Your task to perform on an android device: delete a single message in the gmail app Image 0: 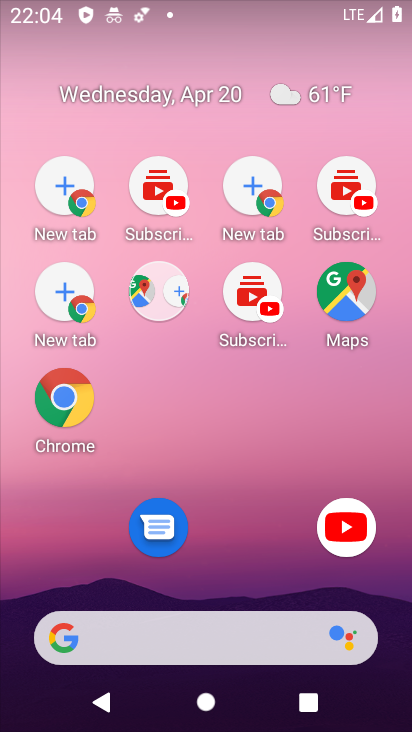
Step 0: drag from (224, 647) to (114, 78)
Your task to perform on an android device: delete a single message in the gmail app Image 1: 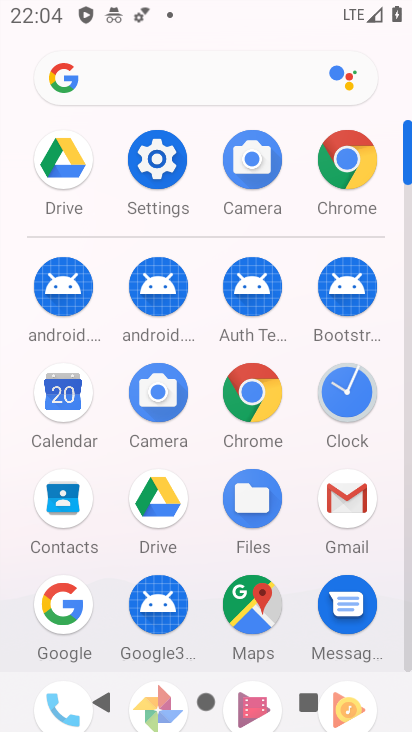
Step 1: click (326, 495)
Your task to perform on an android device: delete a single message in the gmail app Image 2: 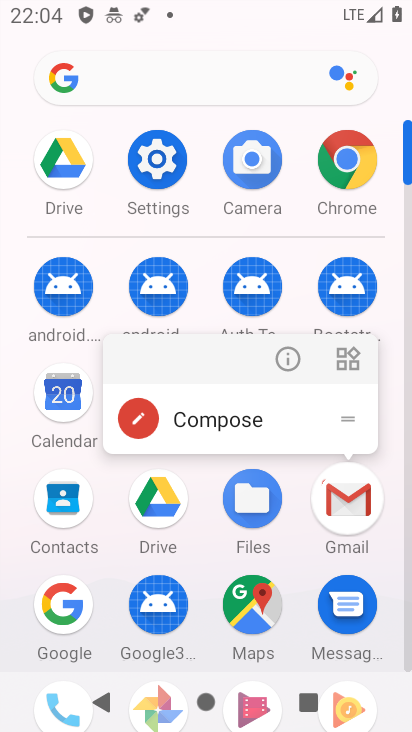
Step 2: click (327, 500)
Your task to perform on an android device: delete a single message in the gmail app Image 3: 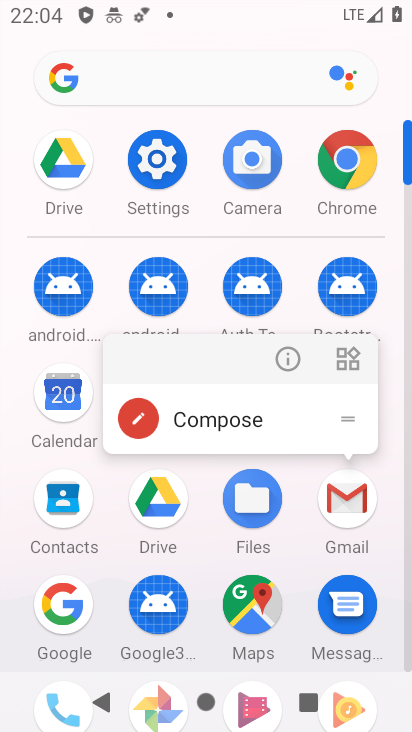
Step 3: click (334, 502)
Your task to perform on an android device: delete a single message in the gmail app Image 4: 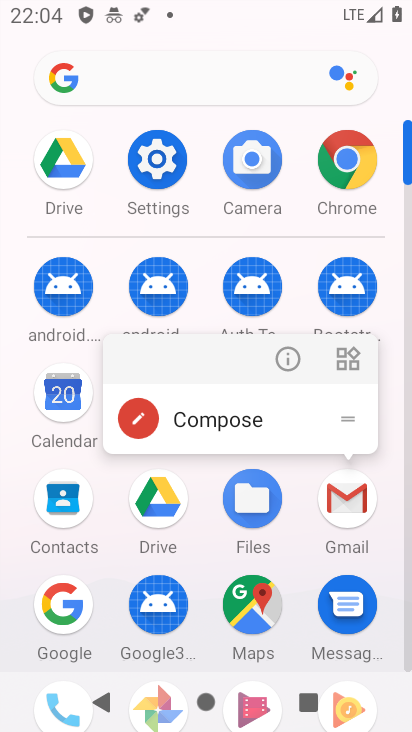
Step 4: click (334, 502)
Your task to perform on an android device: delete a single message in the gmail app Image 5: 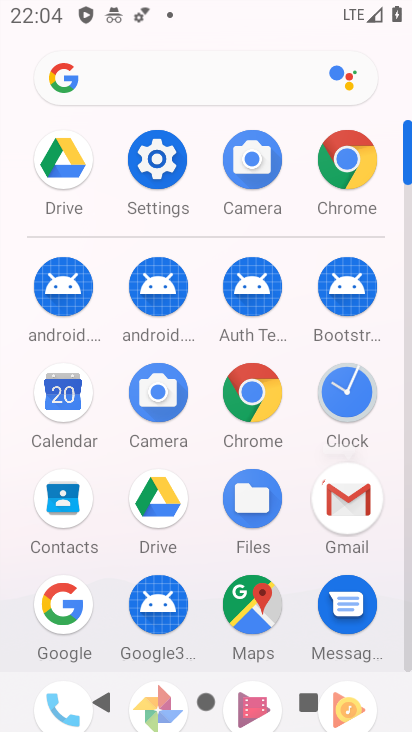
Step 5: click (340, 498)
Your task to perform on an android device: delete a single message in the gmail app Image 6: 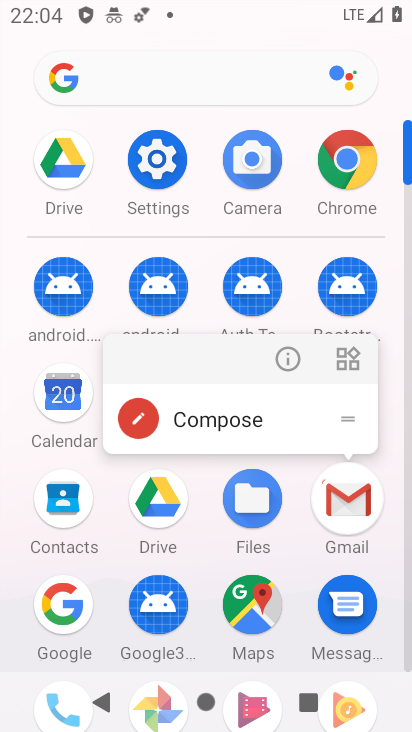
Step 6: click (338, 488)
Your task to perform on an android device: delete a single message in the gmail app Image 7: 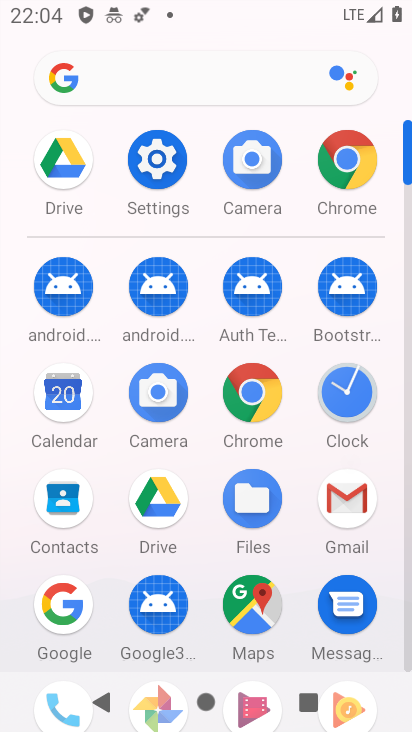
Step 7: click (335, 482)
Your task to perform on an android device: delete a single message in the gmail app Image 8: 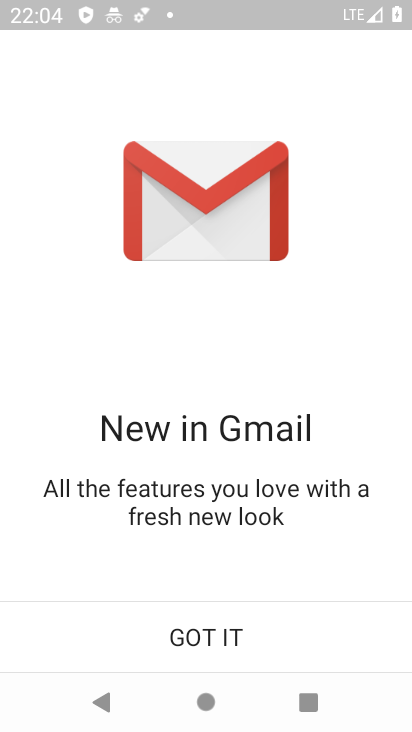
Step 8: click (181, 646)
Your task to perform on an android device: delete a single message in the gmail app Image 9: 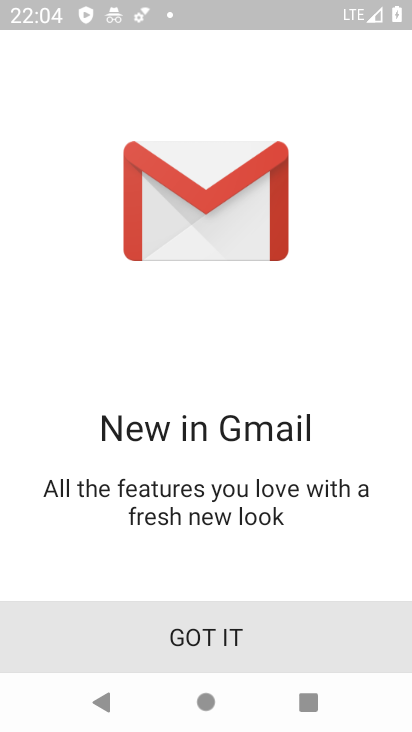
Step 9: click (212, 637)
Your task to perform on an android device: delete a single message in the gmail app Image 10: 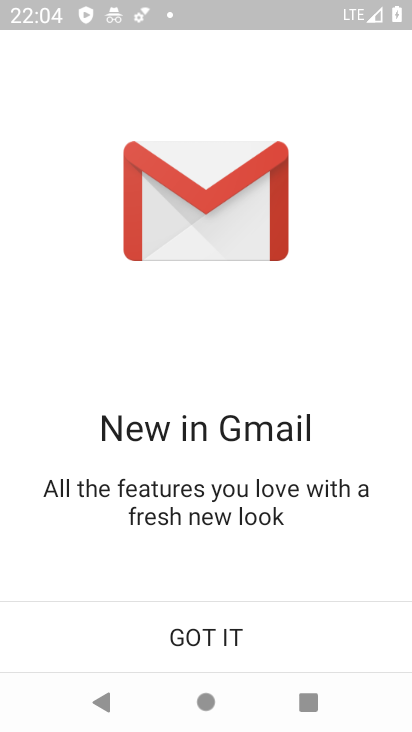
Step 10: click (215, 633)
Your task to perform on an android device: delete a single message in the gmail app Image 11: 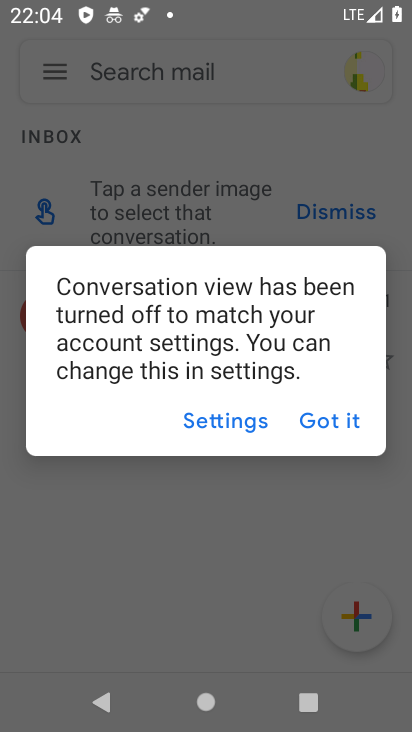
Step 11: click (310, 415)
Your task to perform on an android device: delete a single message in the gmail app Image 12: 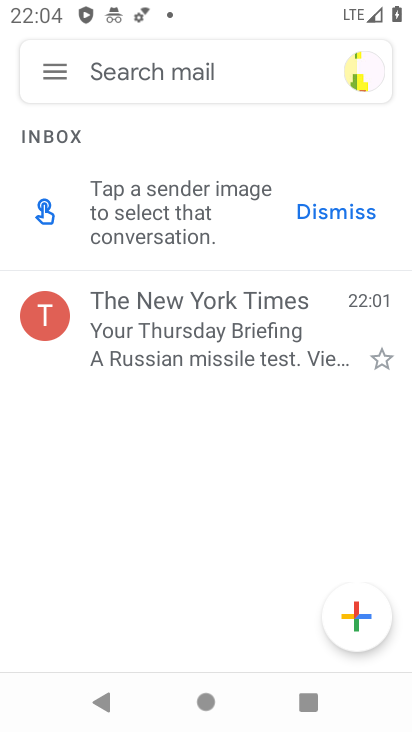
Step 12: drag from (57, 67) to (89, 211)
Your task to perform on an android device: delete a single message in the gmail app Image 13: 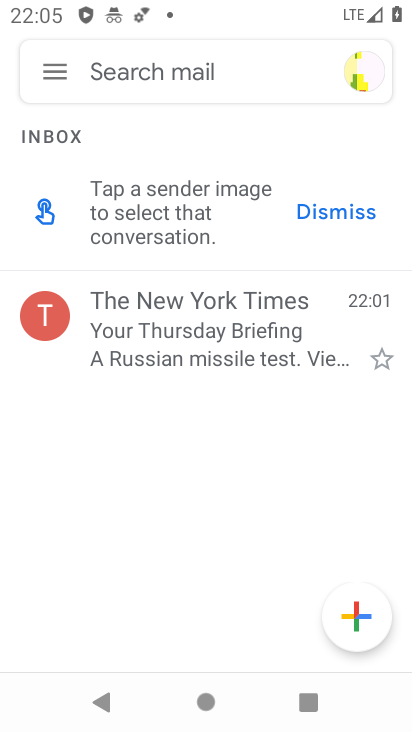
Step 13: click (56, 67)
Your task to perform on an android device: delete a single message in the gmail app Image 14: 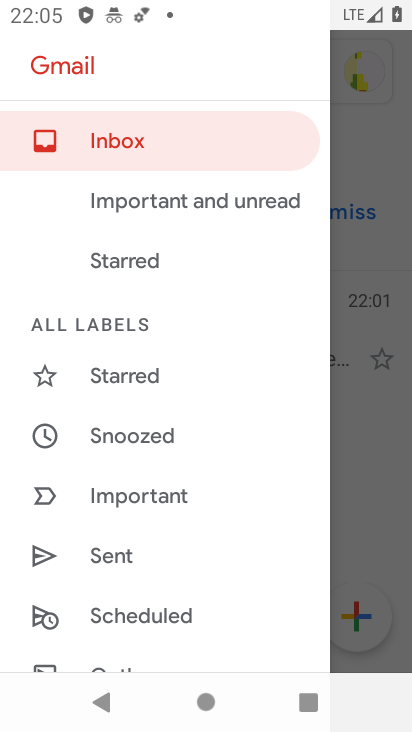
Step 14: drag from (196, 564) to (127, 270)
Your task to perform on an android device: delete a single message in the gmail app Image 15: 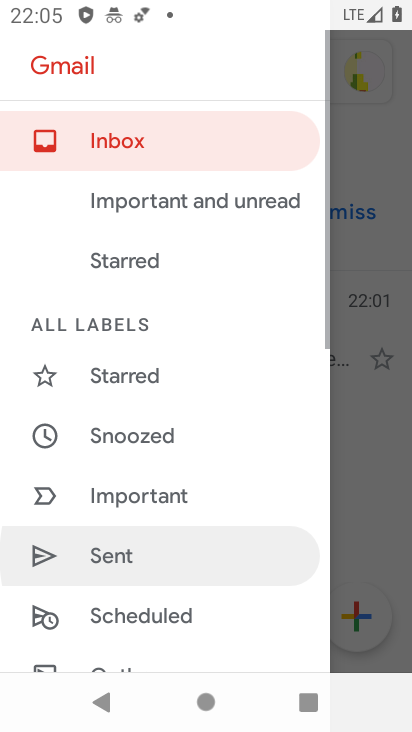
Step 15: drag from (224, 448) to (202, 136)
Your task to perform on an android device: delete a single message in the gmail app Image 16: 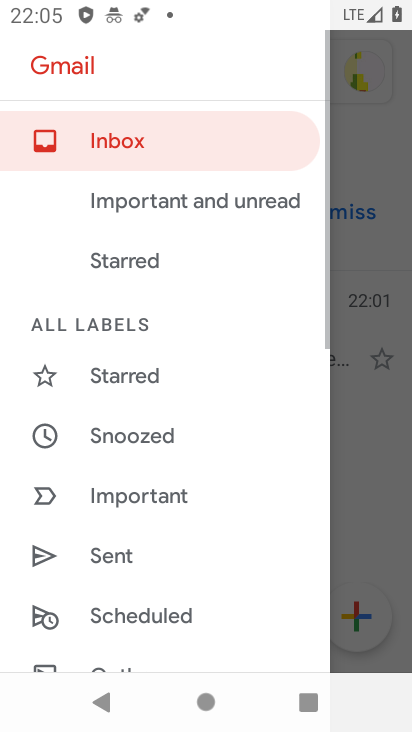
Step 16: drag from (193, 554) to (122, 279)
Your task to perform on an android device: delete a single message in the gmail app Image 17: 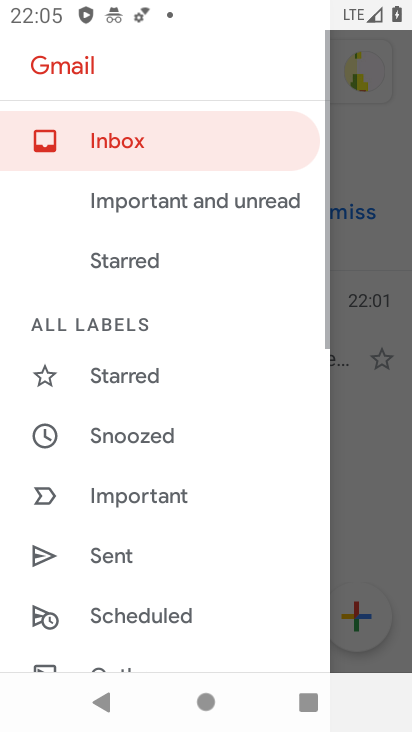
Step 17: drag from (240, 550) to (179, 118)
Your task to perform on an android device: delete a single message in the gmail app Image 18: 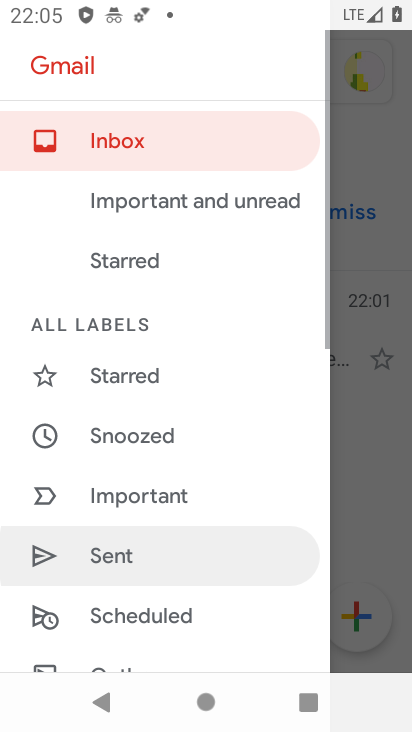
Step 18: drag from (231, 473) to (208, 52)
Your task to perform on an android device: delete a single message in the gmail app Image 19: 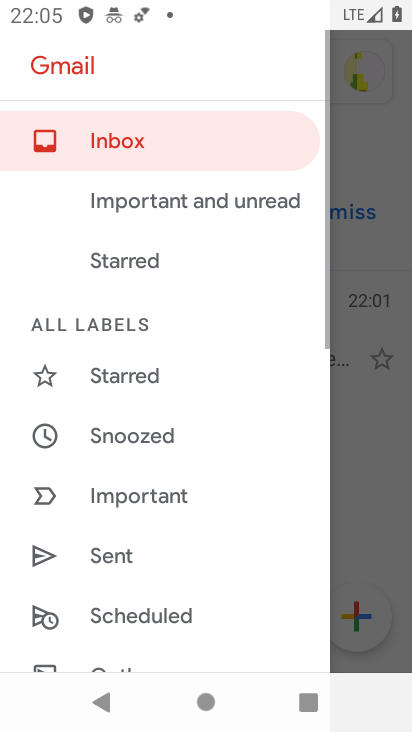
Step 19: drag from (156, 538) to (135, 191)
Your task to perform on an android device: delete a single message in the gmail app Image 20: 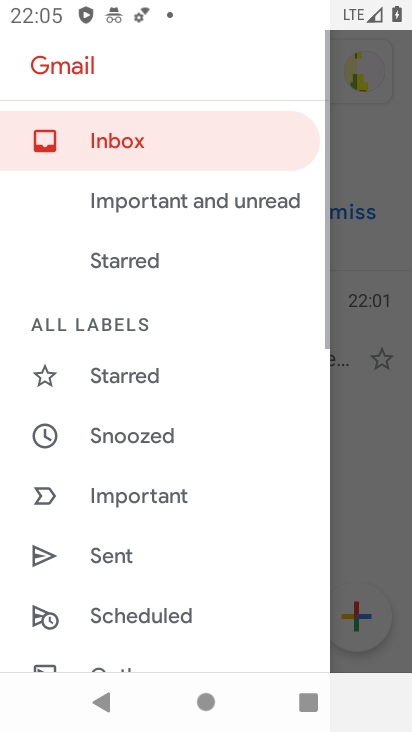
Step 20: drag from (179, 504) to (210, 162)
Your task to perform on an android device: delete a single message in the gmail app Image 21: 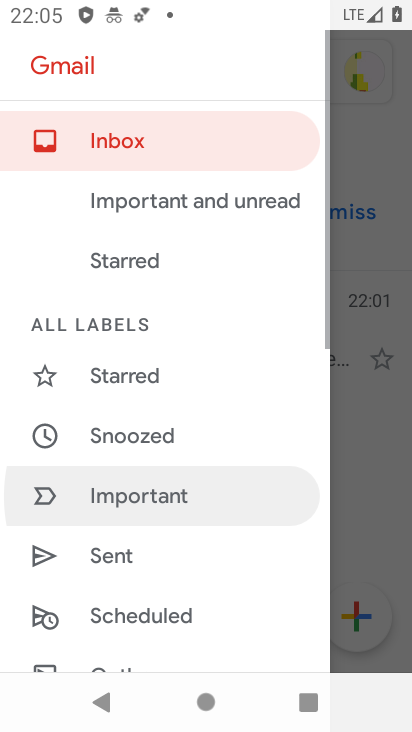
Step 21: drag from (281, 537) to (194, 123)
Your task to perform on an android device: delete a single message in the gmail app Image 22: 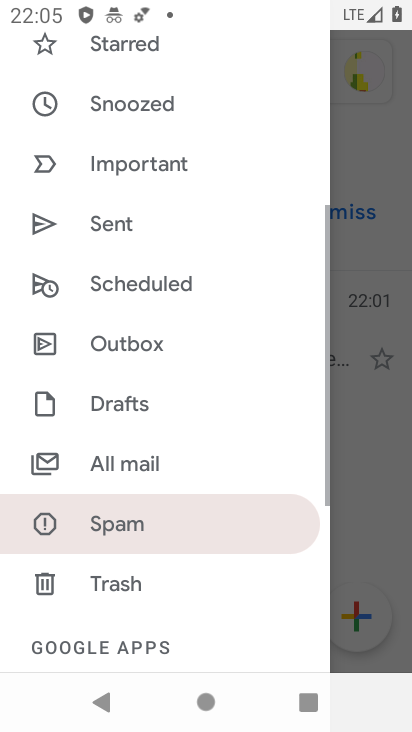
Step 22: drag from (202, 457) to (158, 28)
Your task to perform on an android device: delete a single message in the gmail app Image 23: 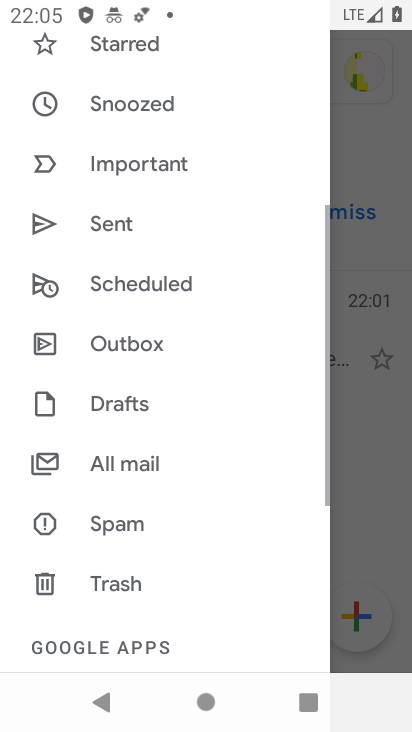
Step 23: click (125, 464)
Your task to perform on an android device: delete a single message in the gmail app Image 24: 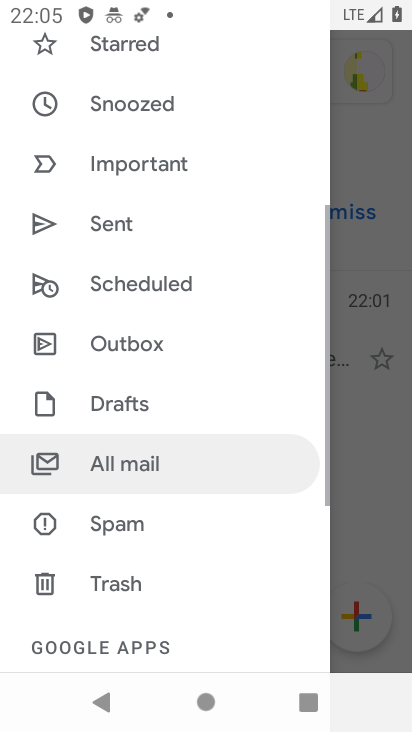
Step 24: click (125, 464)
Your task to perform on an android device: delete a single message in the gmail app Image 25: 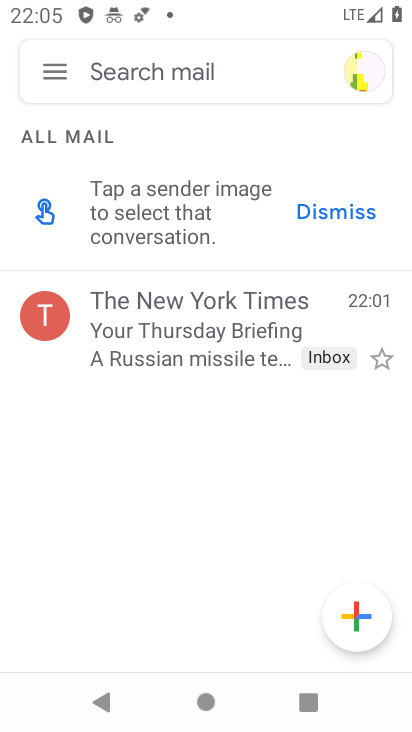
Step 25: drag from (143, 318) to (198, 206)
Your task to perform on an android device: delete a single message in the gmail app Image 26: 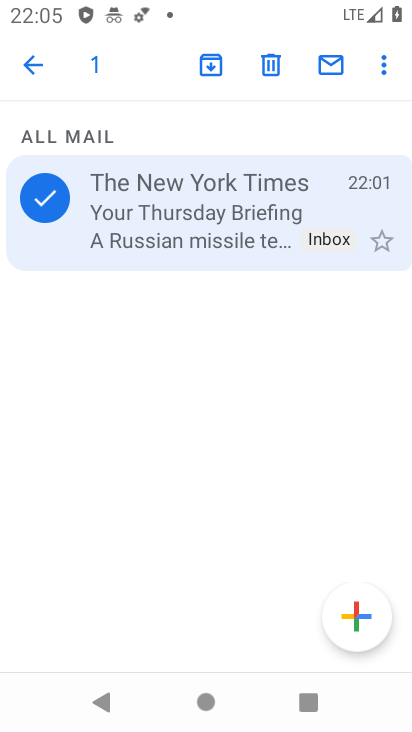
Step 26: click (268, 67)
Your task to perform on an android device: delete a single message in the gmail app Image 27: 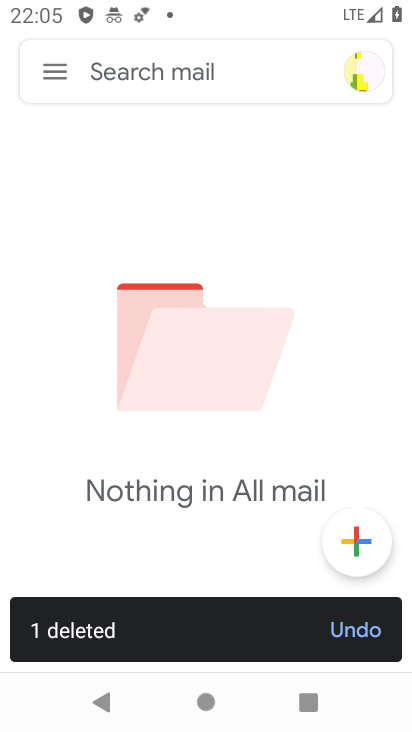
Step 27: task complete